Your task to perform on an android device: empty trash in the gmail app Image 0: 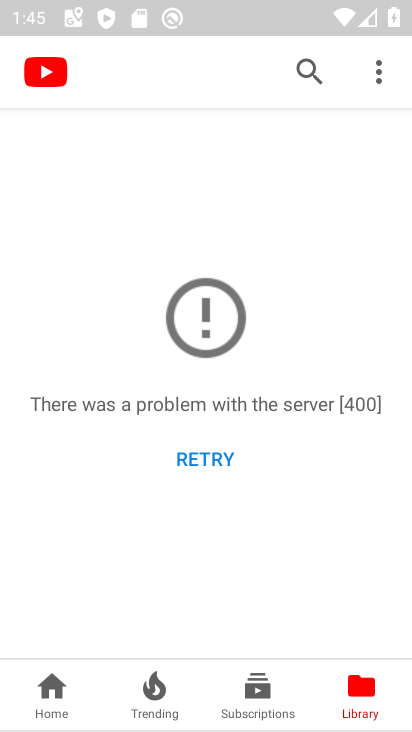
Step 0: press home button
Your task to perform on an android device: empty trash in the gmail app Image 1: 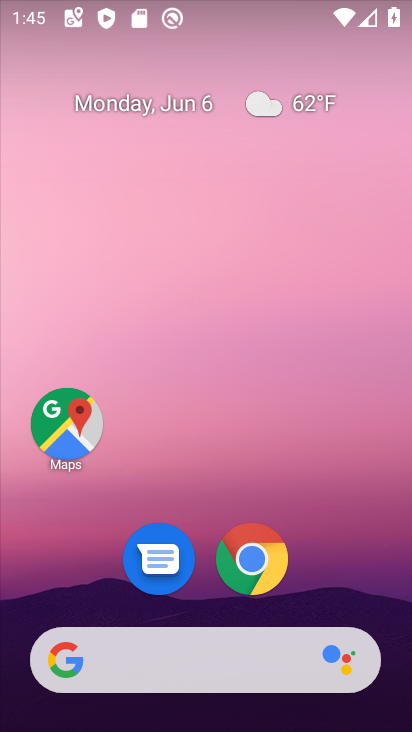
Step 1: drag from (74, 586) to (181, 167)
Your task to perform on an android device: empty trash in the gmail app Image 2: 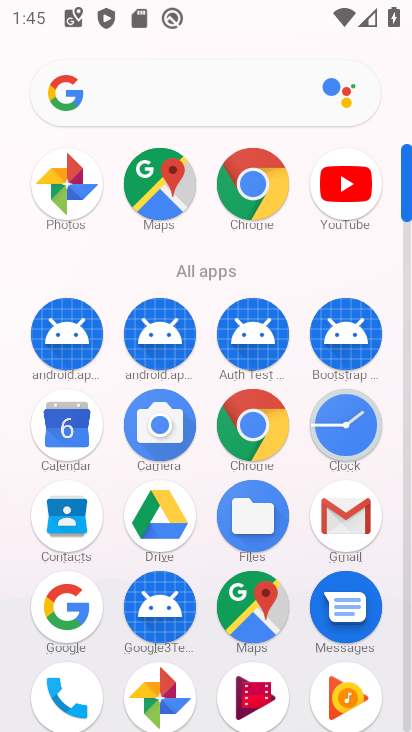
Step 2: click (354, 514)
Your task to perform on an android device: empty trash in the gmail app Image 3: 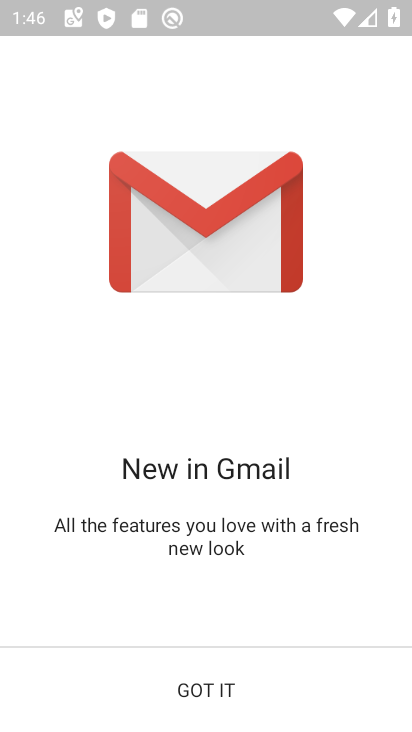
Step 3: click (237, 689)
Your task to perform on an android device: empty trash in the gmail app Image 4: 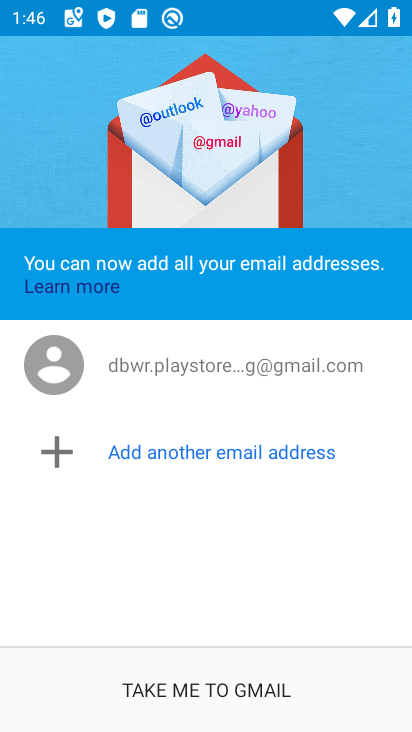
Step 4: click (237, 689)
Your task to perform on an android device: empty trash in the gmail app Image 5: 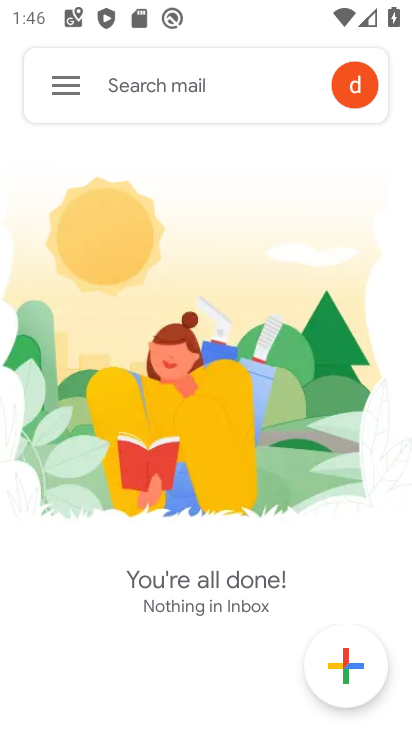
Step 5: click (57, 81)
Your task to perform on an android device: empty trash in the gmail app Image 6: 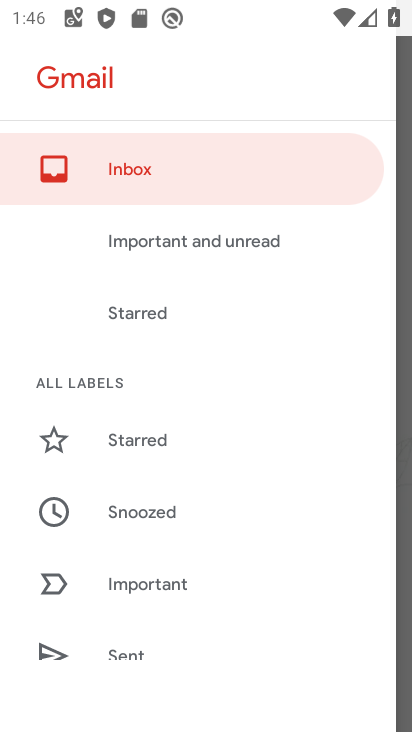
Step 6: drag from (168, 621) to (270, 219)
Your task to perform on an android device: empty trash in the gmail app Image 7: 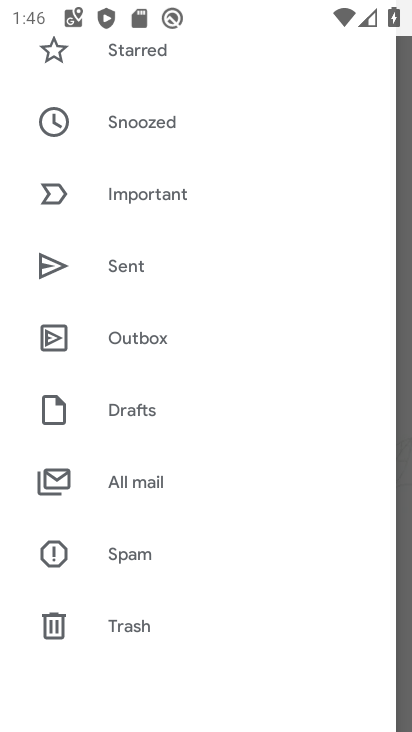
Step 7: drag from (182, 582) to (246, 323)
Your task to perform on an android device: empty trash in the gmail app Image 8: 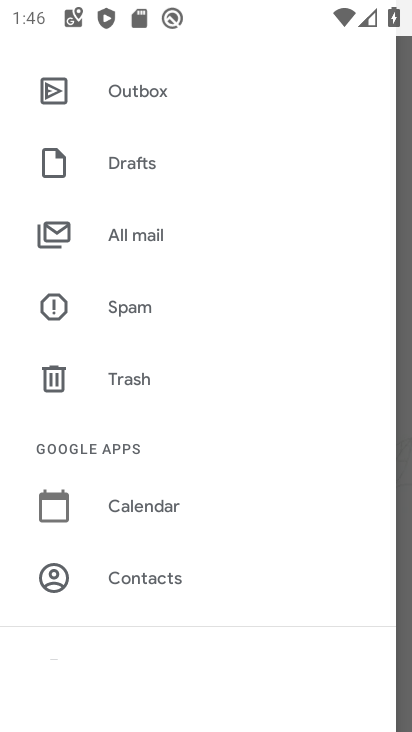
Step 8: drag from (218, 428) to (260, 259)
Your task to perform on an android device: empty trash in the gmail app Image 9: 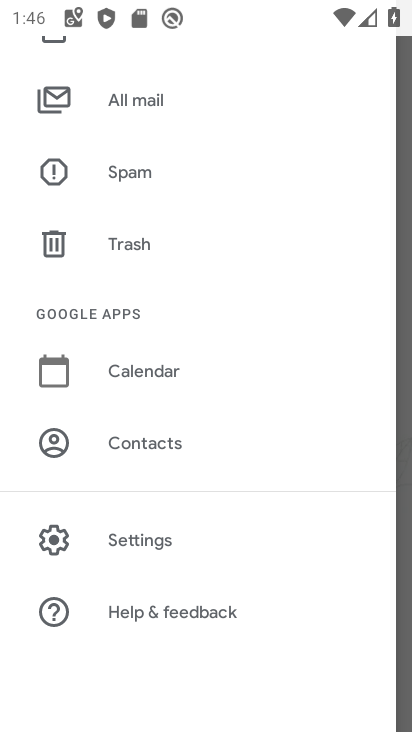
Step 9: click (172, 251)
Your task to perform on an android device: empty trash in the gmail app Image 10: 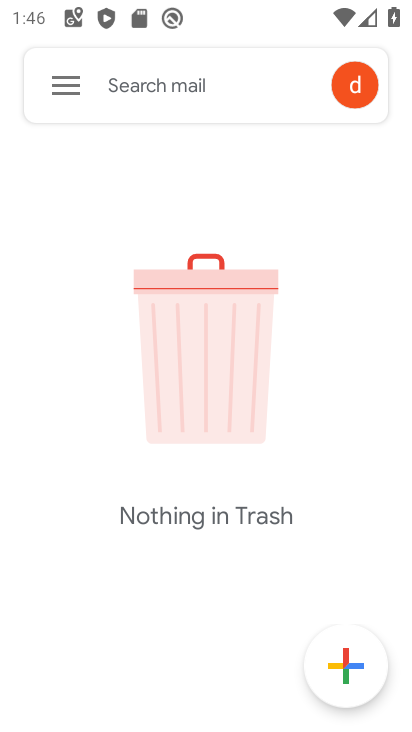
Step 10: task complete